Your task to perform on an android device: turn off notifications in google photos Image 0: 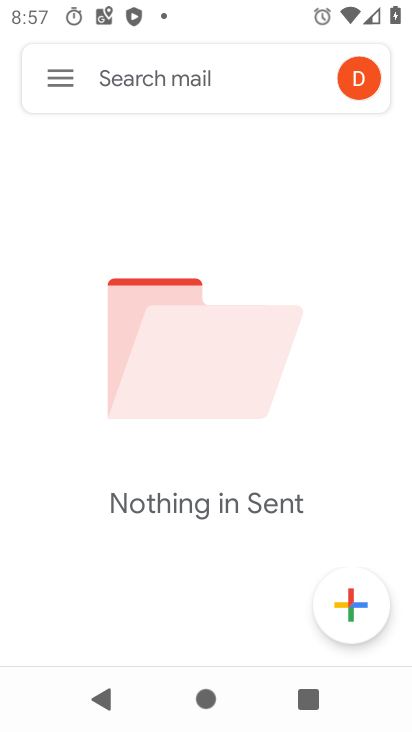
Step 0: press home button
Your task to perform on an android device: turn off notifications in google photos Image 1: 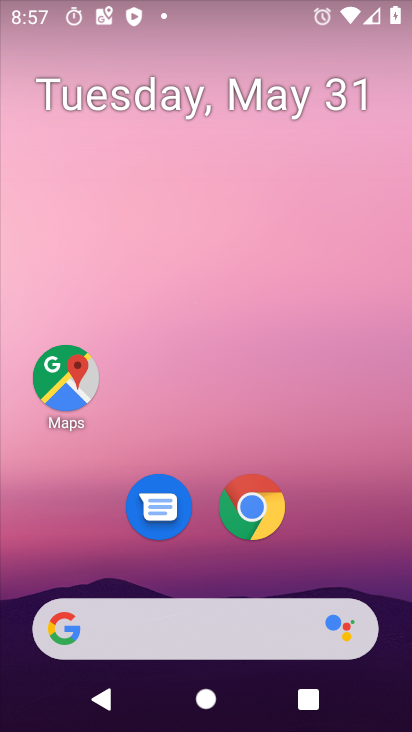
Step 1: drag from (356, 589) to (341, 0)
Your task to perform on an android device: turn off notifications in google photos Image 2: 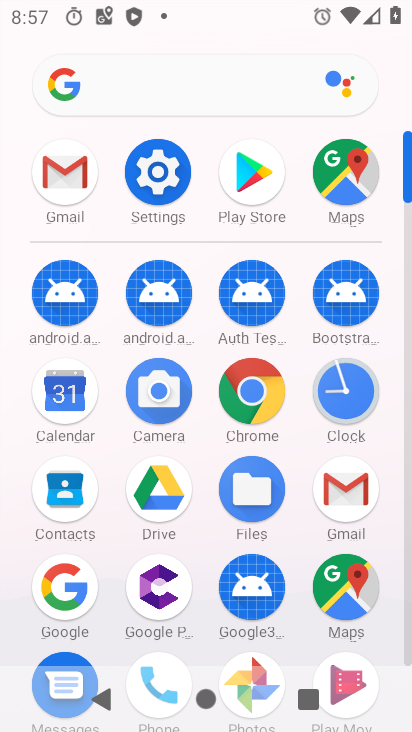
Step 2: click (407, 529)
Your task to perform on an android device: turn off notifications in google photos Image 3: 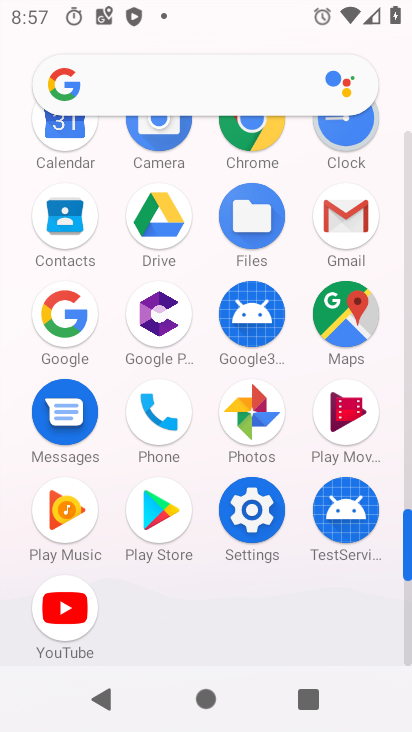
Step 3: click (252, 413)
Your task to perform on an android device: turn off notifications in google photos Image 4: 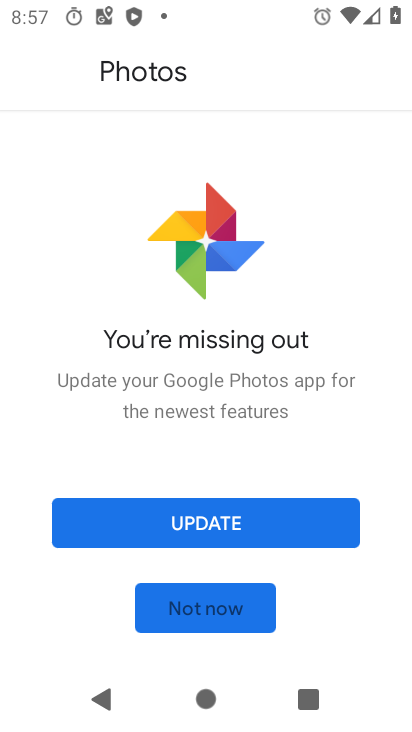
Step 4: click (213, 614)
Your task to perform on an android device: turn off notifications in google photos Image 5: 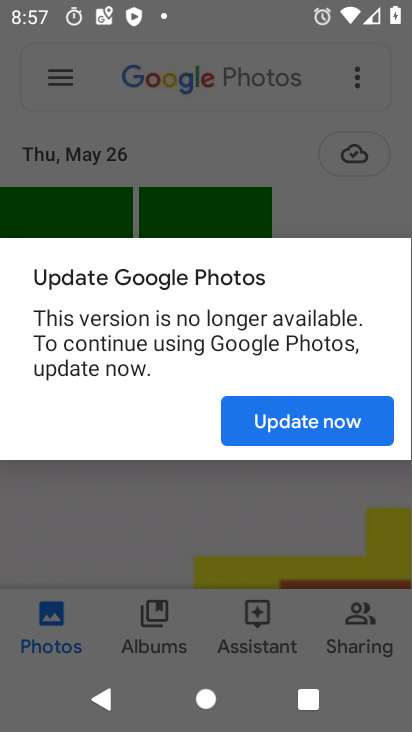
Step 5: click (258, 436)
Your task to perform on an android device: turn off notifications in google photos Image 6: 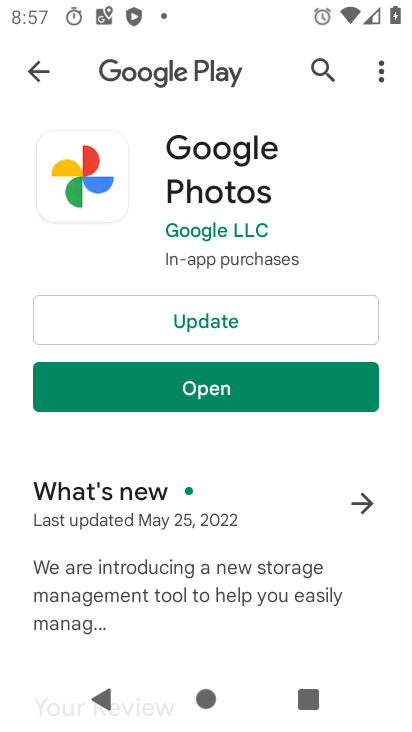
Step 6: click (199, 390)
Your task to perform on an android device: turn off notifications in google photos Image 7: 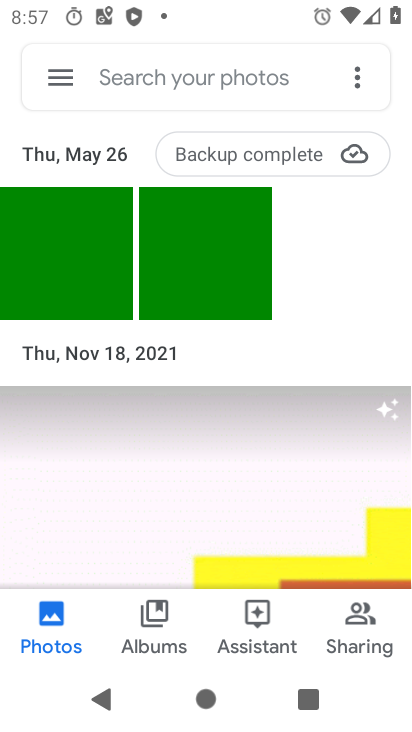
Step 7: click (60, 85)
Your task to perform on an android device: turn off notifications in google photos Image 8: 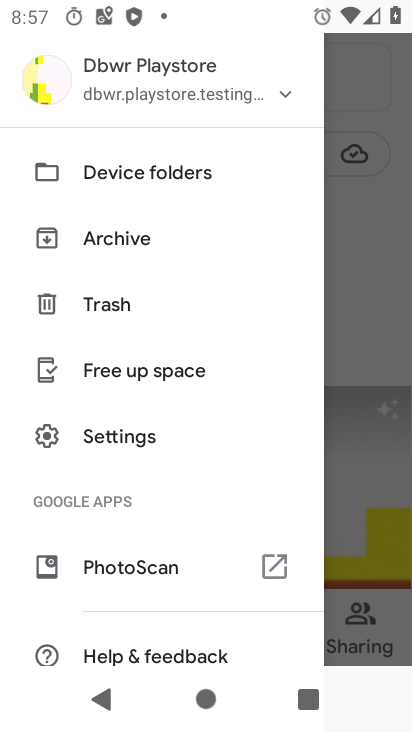
Step 8: click (126, 455)
Your task to perform on an android device: turn off notifications in google photos Image 9: 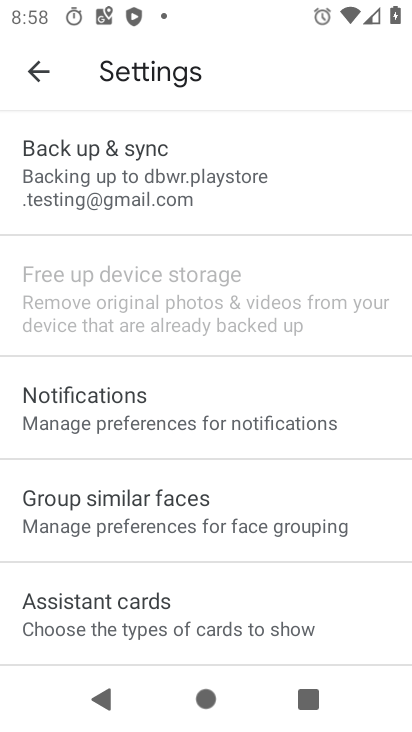
Step 9: click (110, 413)
Your task to perform on an android device: turn off notifications in google photos Image 10: 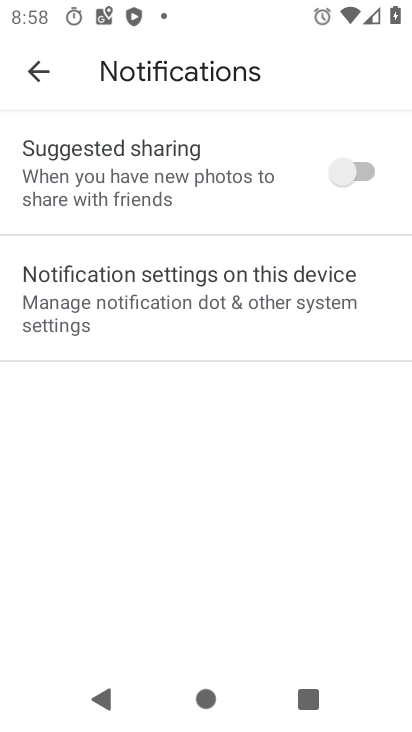
Step 10: click (134, 319)
Your task to perform on an android device: turn off notifications in google photos Image 11: 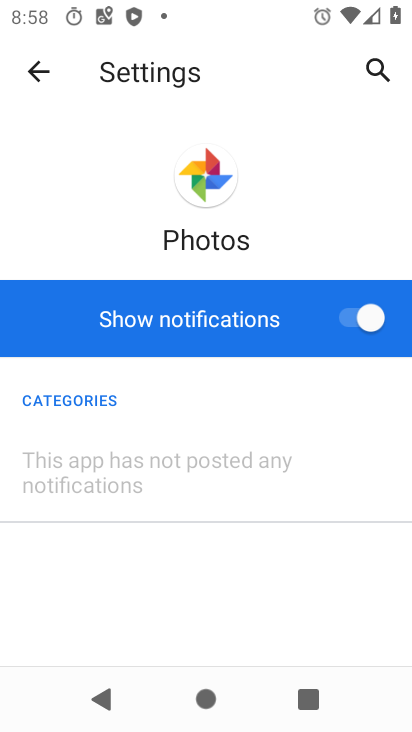
Step 11: click (355, 313)
Your task to perform on an android device: turn off notifications in google photos Image 12: 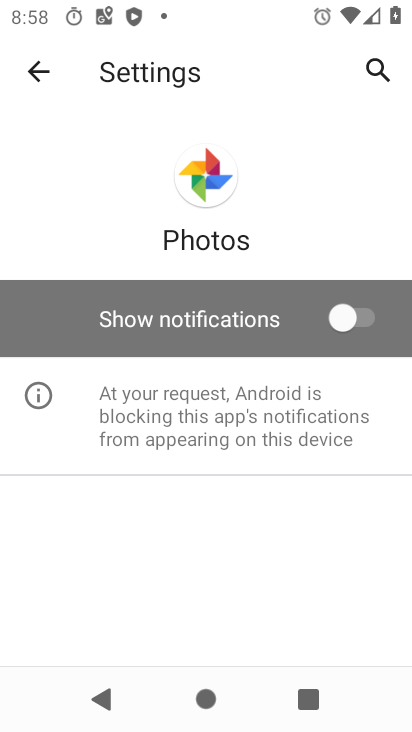
Step 12: task complete